Your task to perform on an android device: Open Google Image 0: 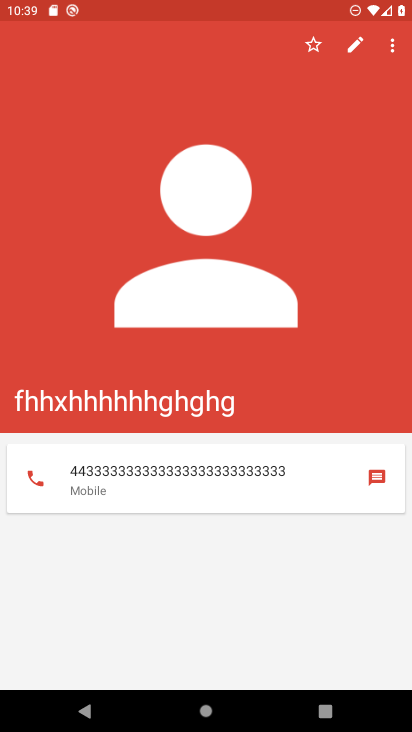
Step 0: press home button
Your task to perform on an android device: Open Google Image 1: 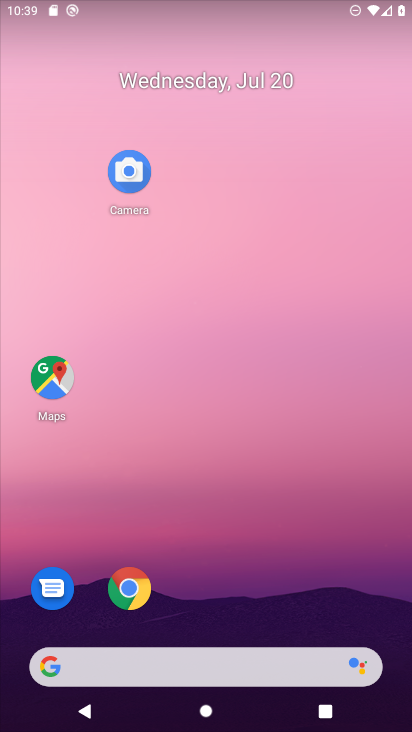
Step 1: drag from (258, 564) to (223, 71)
Your task to perform on an android device: Open Google Image 2: 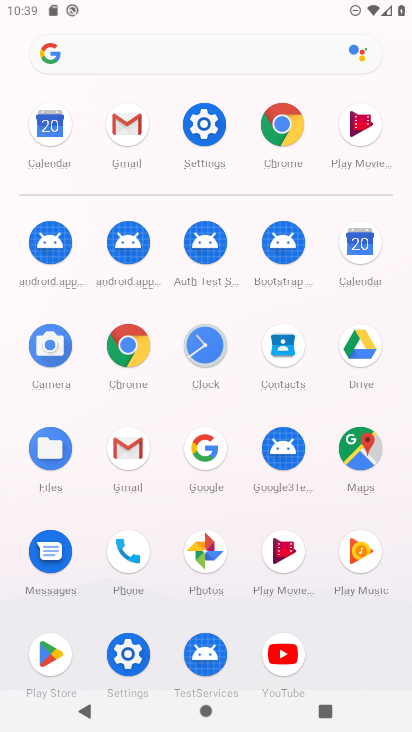
Step 2: click (207, 445)
Your task to perform on an android device: Open Google Image 3: 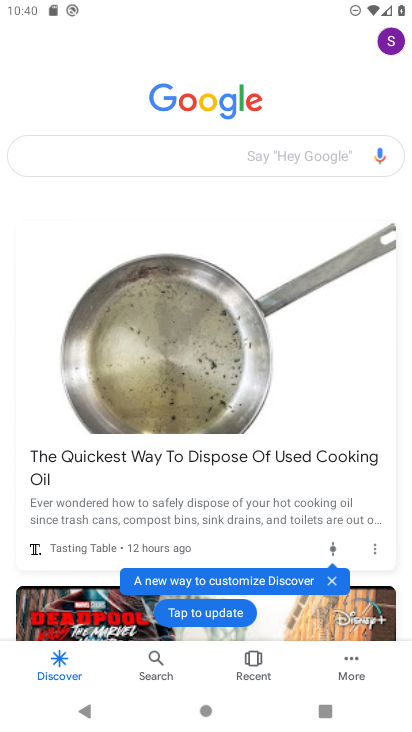
Step 3: task complete